Your task to perform on an android device: Empty the shopping cart on ebay.com. Search for "razer blade" on ebay.com, select the first entry, and add it to the cart. Image 0: 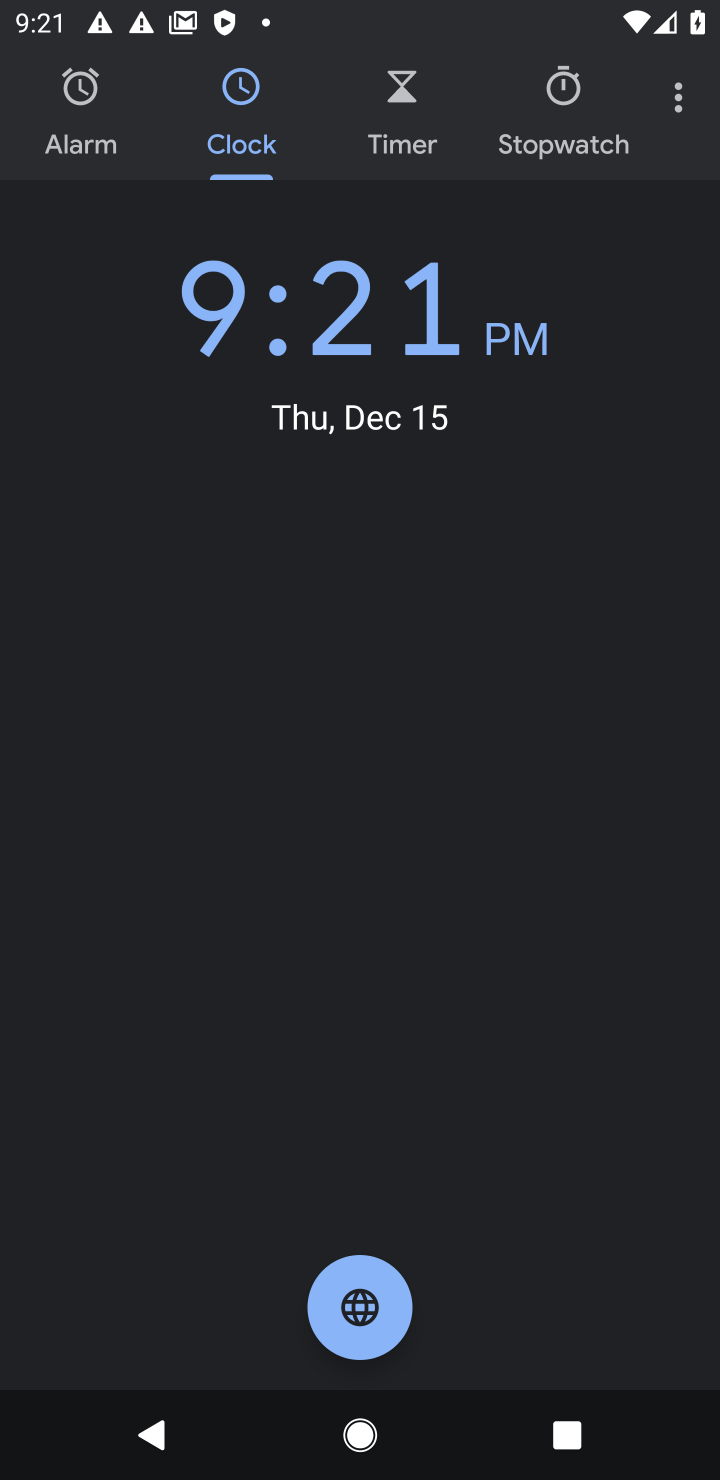
Step 0: press home button
Your task to perform on an android device: Empty the shopping cart on ebay.com. Search for "razer blade" on ebay.com, select the first entry, and add it to the cart. Image 1: 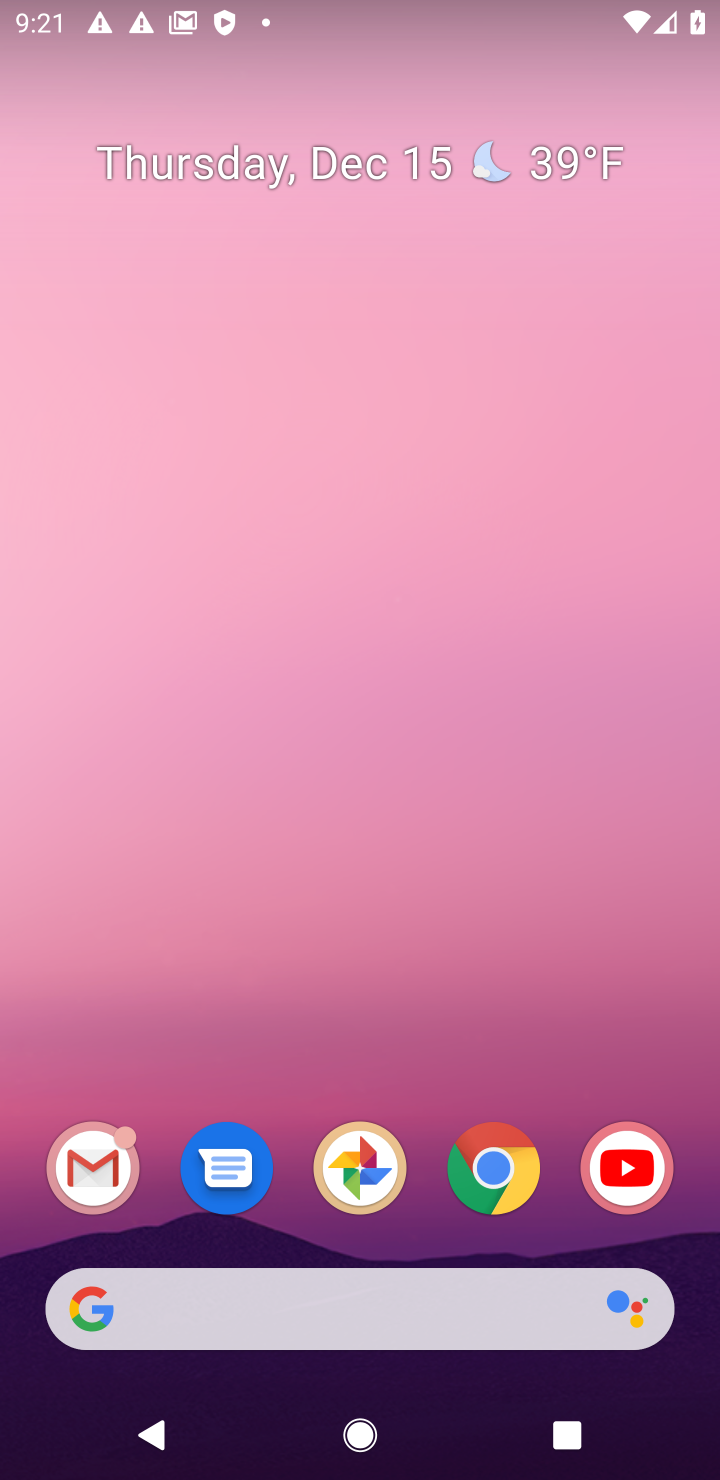
Step 1: click (490, 1179)
Your task to perform on an android device: Empty the shopping cart on ebay.com. Search for "razer blade" on ebay.com, select the first entry, and add it to the cart. Image 2: 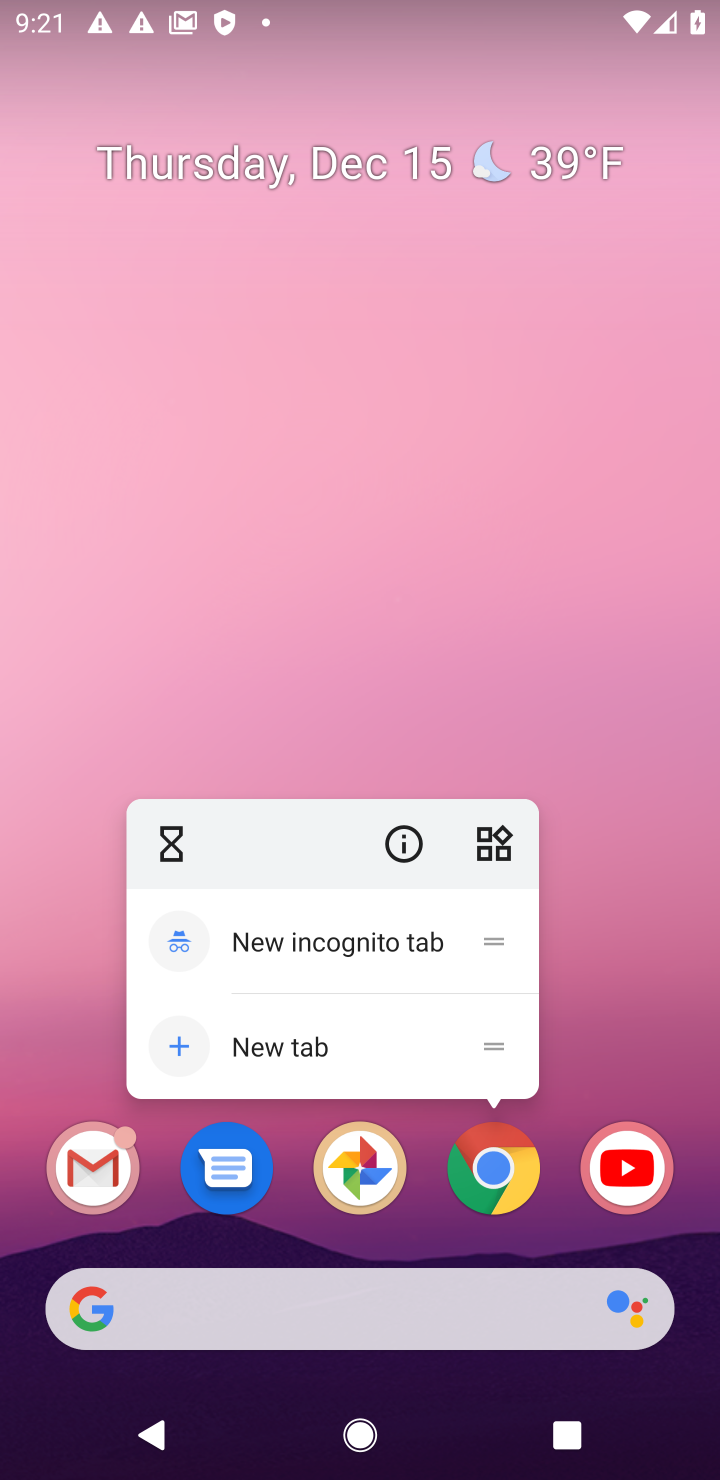
Step 2: click (501, 1185)
Your task to perform on an android device: Empty the shopping cart on ebay.com. Search for "razer blade" on ebay.com, select the first entry, and add it to the cart. Image 3: 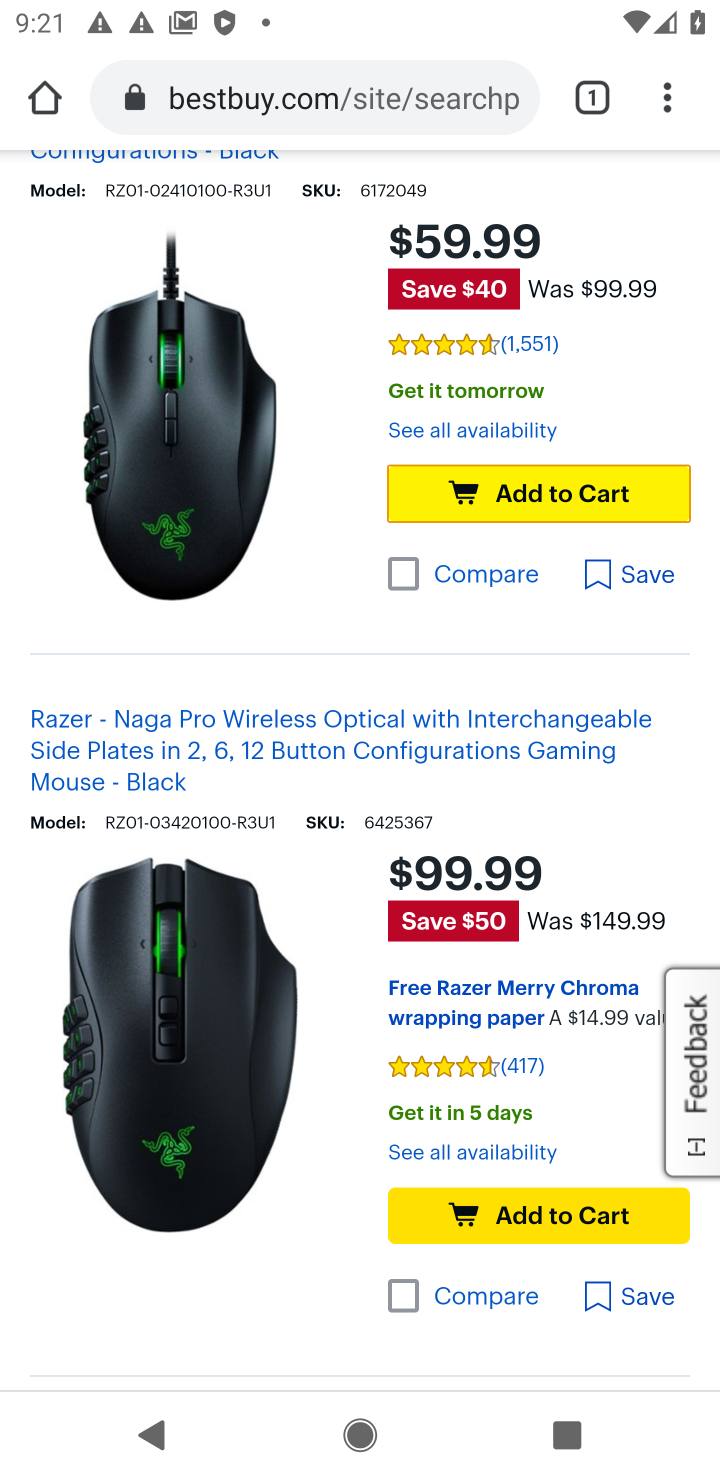
Step 3: click (282, 98)
Your task to perform on an android device: Empty the shopping cart on ebay.com. Search for "razer blade" on ebay.com, select the first entry, and add it to the cart. Image 4: 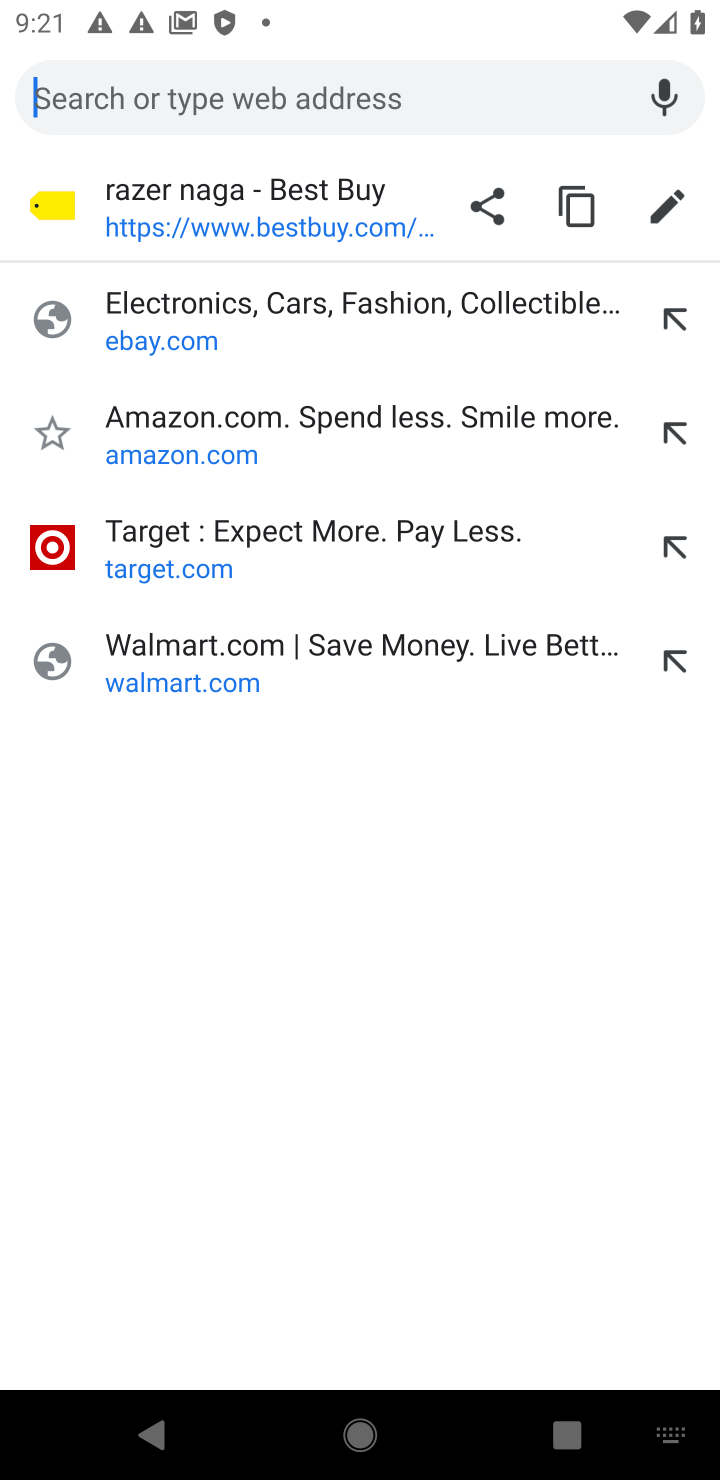
Step 4: type "EBAY"
Your task to perform on an android device: Empty the shopping cart on ebay.com. Search for "razer blade" on ebay.com, select the first entry, and add it to the cart. Image 5: 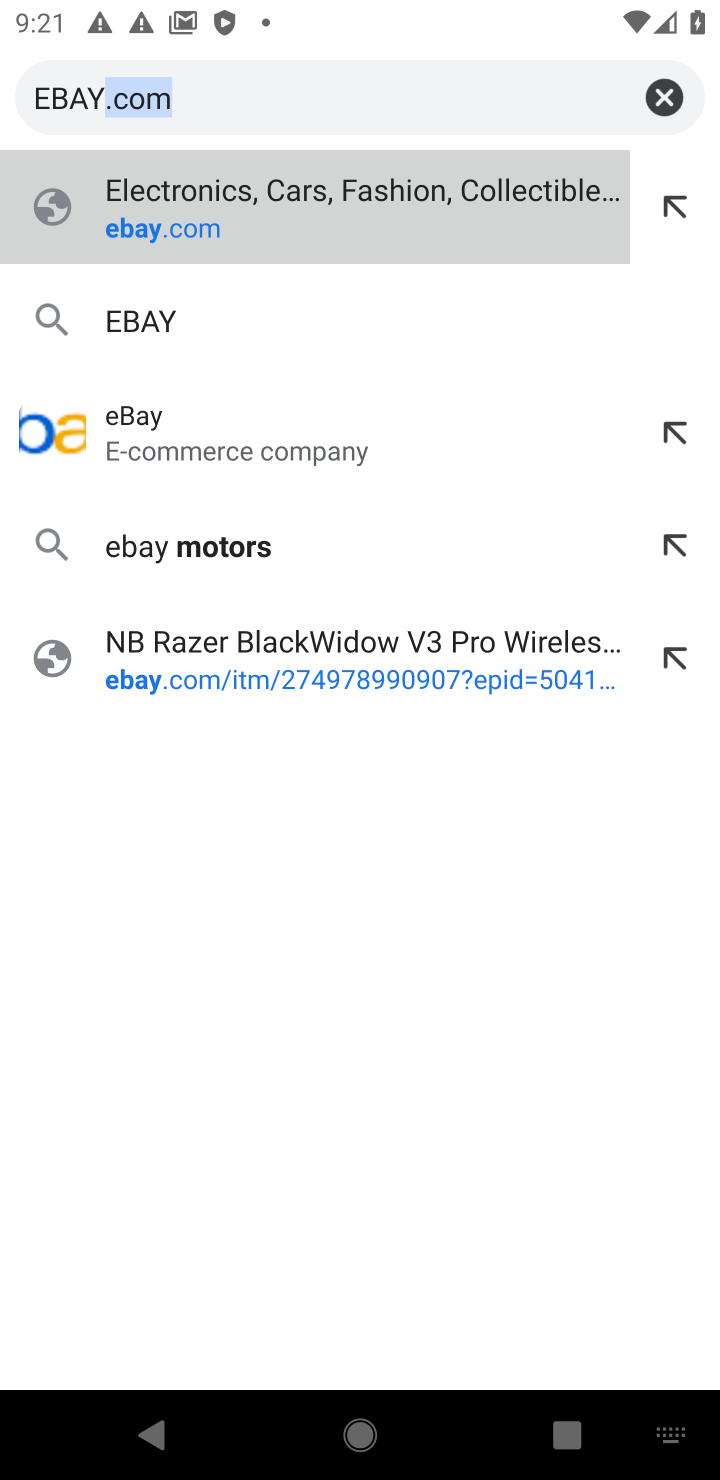
Step 5: click (283, 224)
Your task to perform on an android device: Empty the shopping cart on ebay.com. Search for "razer blade" on ebay.com, select the first entry, and add it to the cart. Image 6: 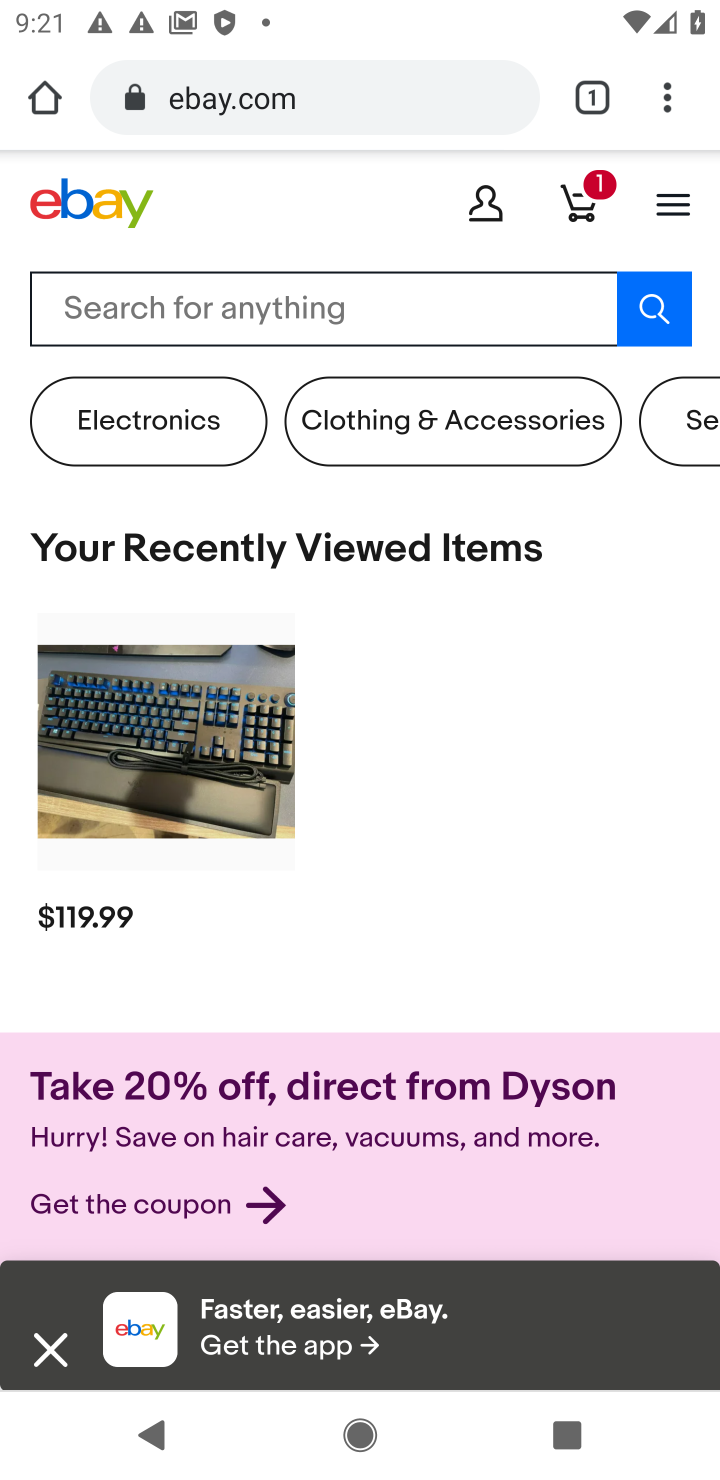
Step 6: click (576, 214)
Your task to perform on an android device: Empty the shopping cart on ebay.com. Search for "razer blade" on ebay.com, select the first entry, and add it to the cart. Image 7: 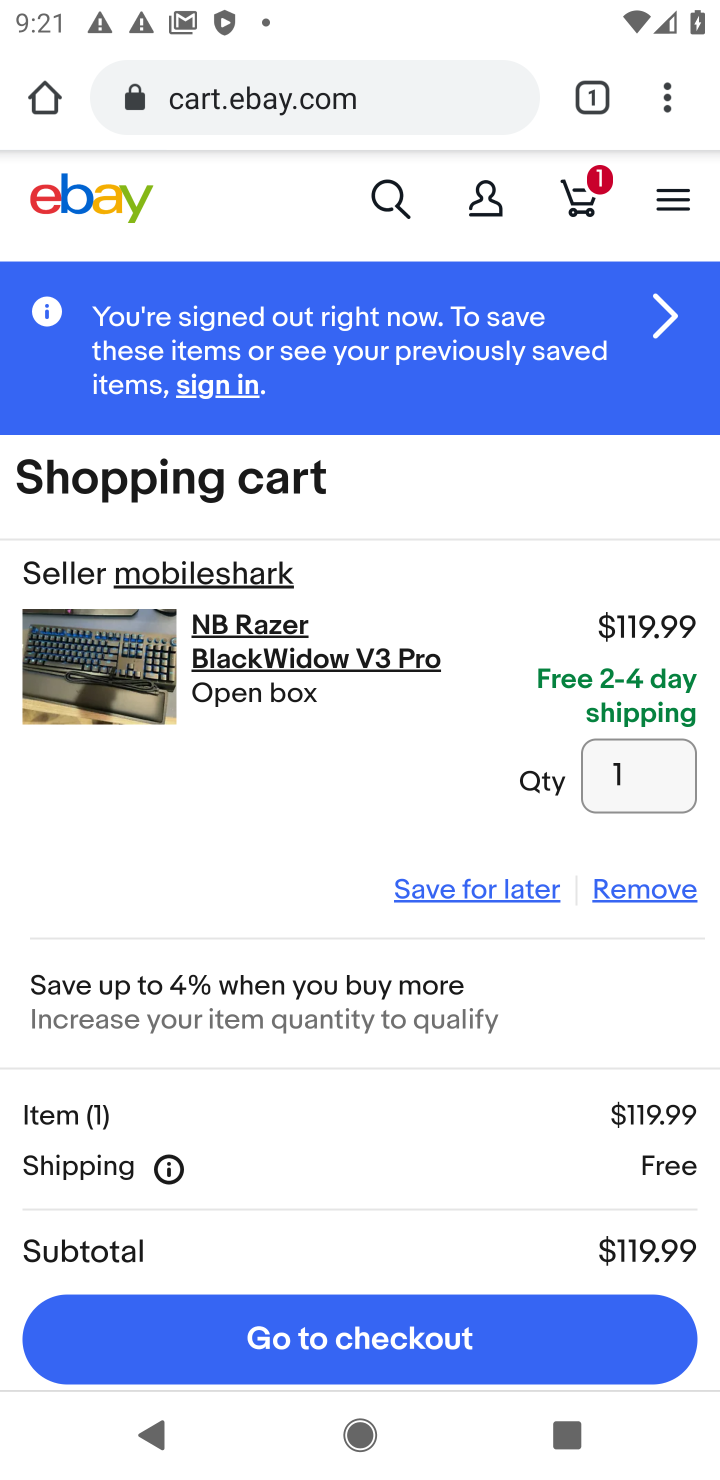
Step 7: click (632, 890)
Your task to perform on an android device: Empty the shopping cart on ebay.com. Search for "razer blade" on ebay.com, select the first entry, and add it to the cart. Image 8: 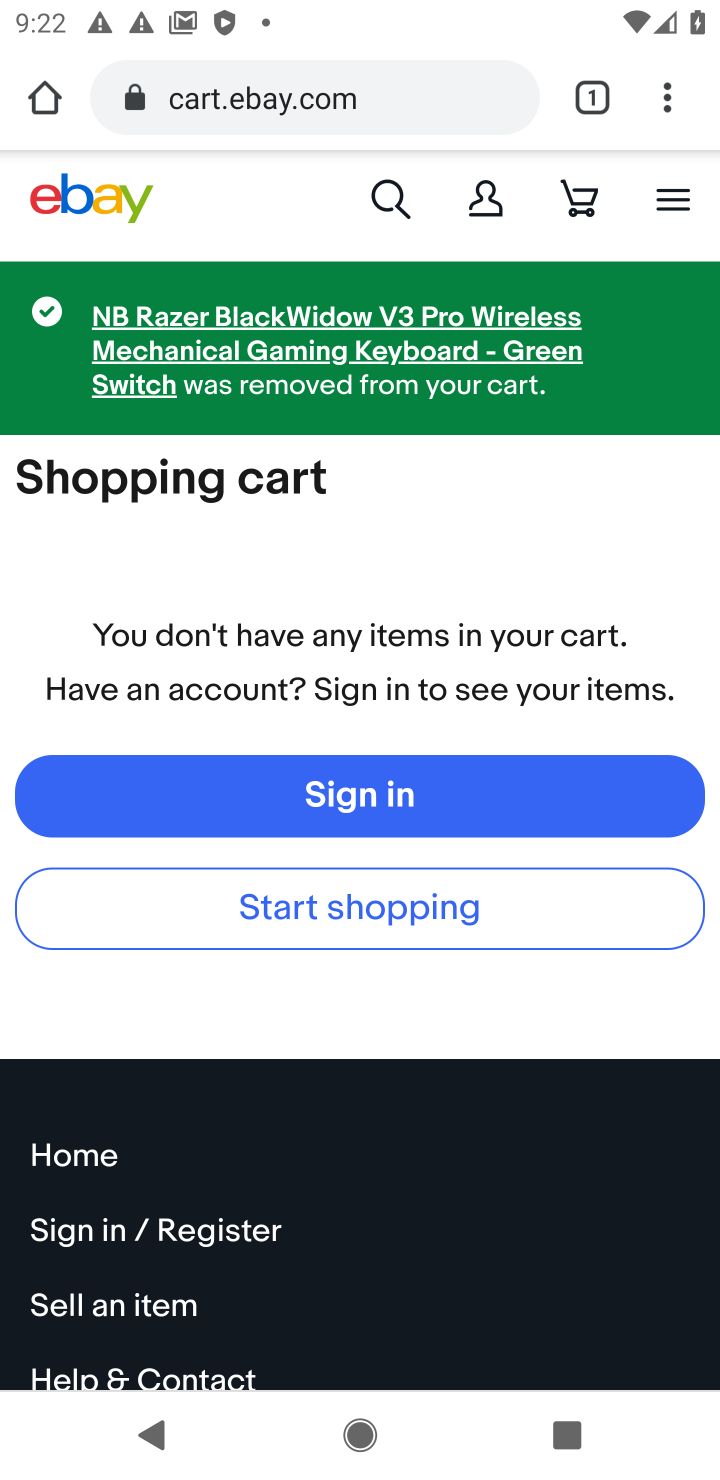
Step 8: click (386, 189)
Your task to perform on an android device: Empty the shopping cart on ebay.com. Search for "razer blade" on ebay.com, select the first entry, and add it to the cart. Image 9: 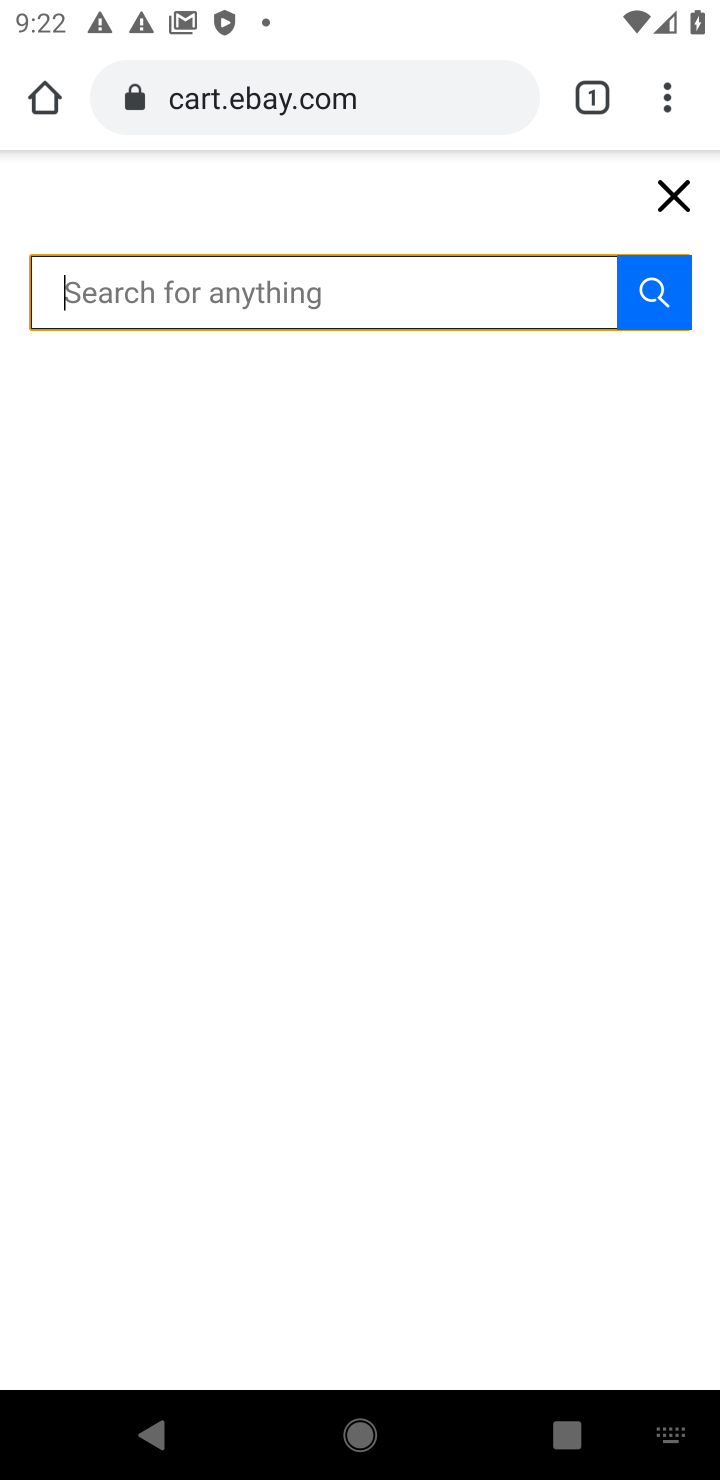
Step 9: click (371, 306)
Your task to perform on an android device: Empty the shopping cart on ebay.com. Search for "razer blade" on ebay.com, select the first entry, and add it to the cart. Image 10: 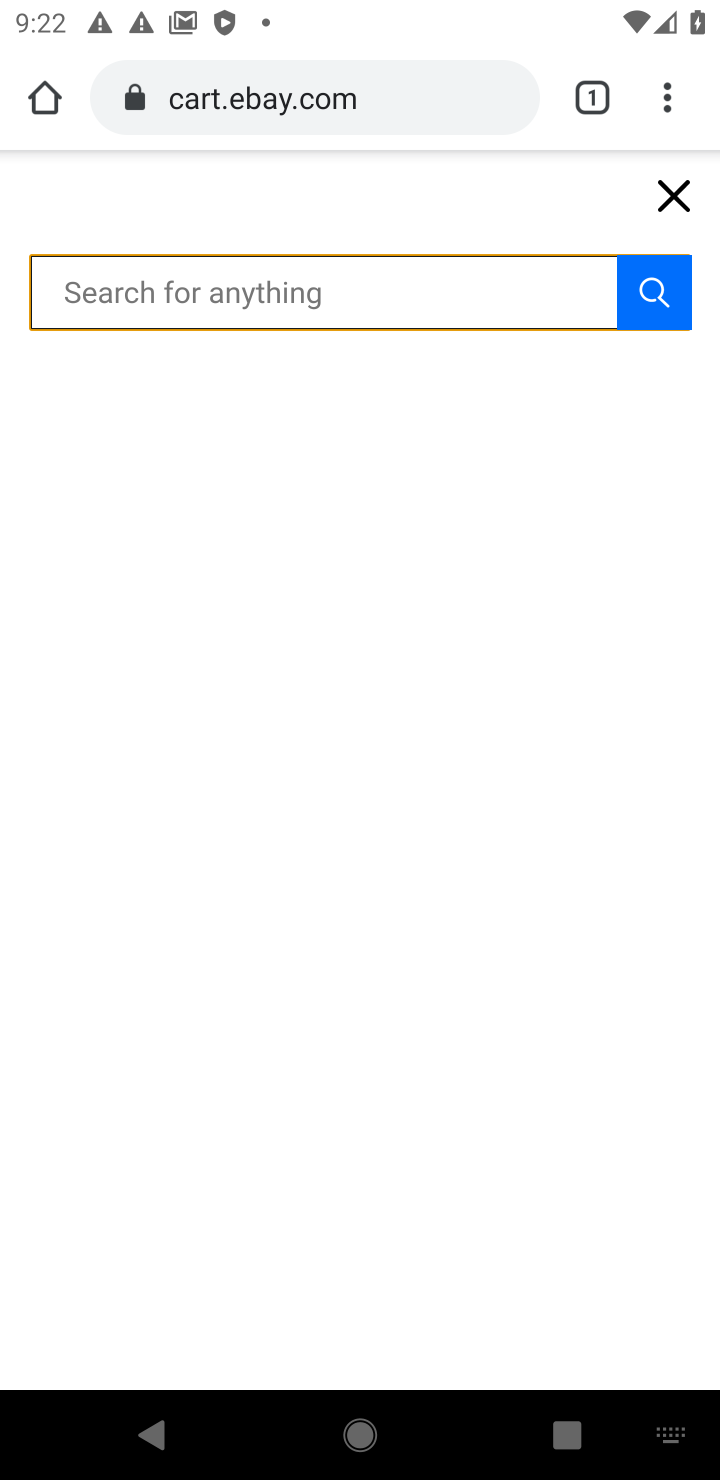
Step 10: type "razer blade"
Your task to perform on an android device: Empty the shopping cart on ebay.com. Search for "razer blade" on ebay.com, select the first entry, and add it to the cart. Image 11: 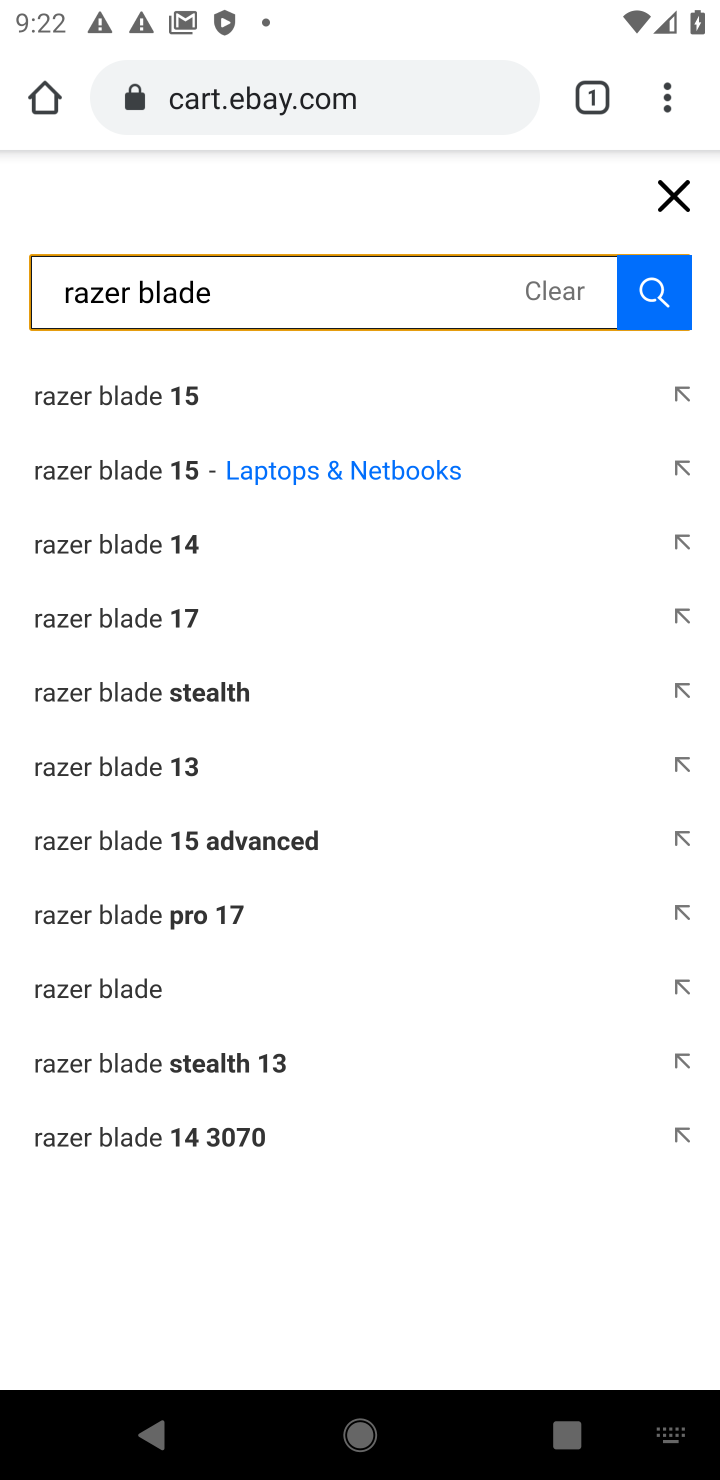
Step 11: click (179, 411)
Your task to perform on an android device: Empty the shopping cart on ebay.com. Search for "razer blade" on ebay.com, select the first entry, and add it to the cart. Image 12: 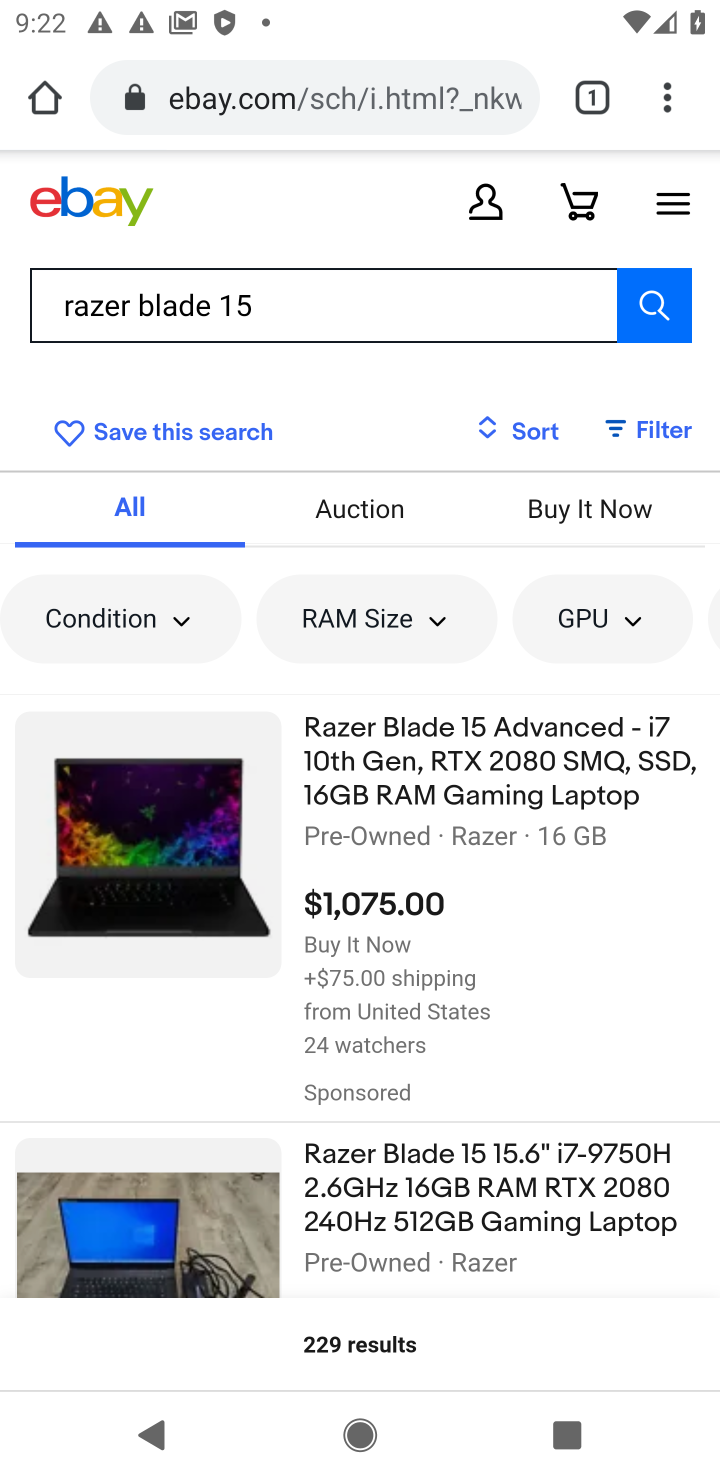
Step 12: click (549, 784)
Your task to perform on an android device: Empty the shopping cart on ebay.com. Search for "razer blade" on ebay.com, select the first entry, and add it to the cart. Image 13: 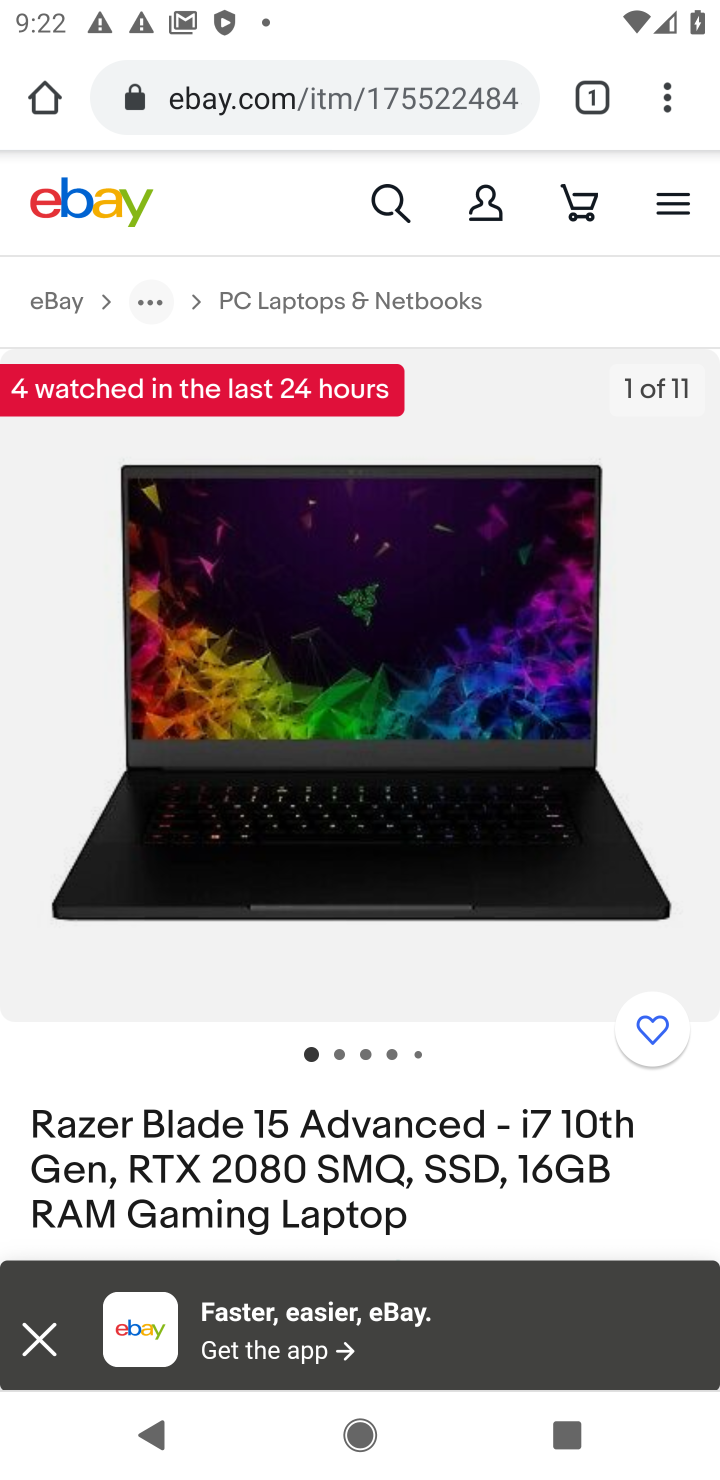
Step 13: drag from (573, 1273) to (548, 356)
Your task to perform on an android device: Empty the shopping cart on ebay.com. Search for "razer blade" on ebay.com, select the first entry, and add it to the cart. Image 14: 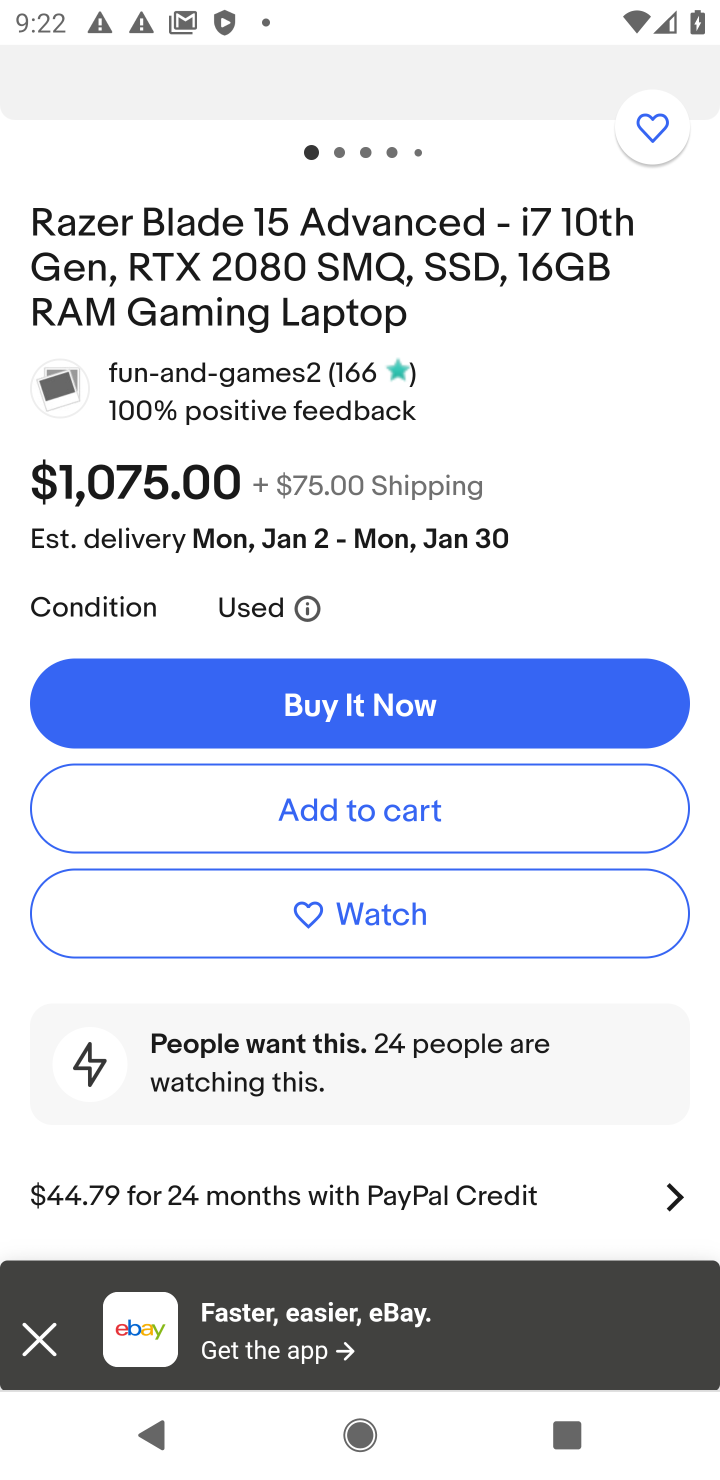
Step 14: click (364, 816)
Your task to perform on an android device: Empty the shopping cart on ebay.com. Search for "razer blade" on ebay.com, select the first entry, and add it to the cart. Image 15: 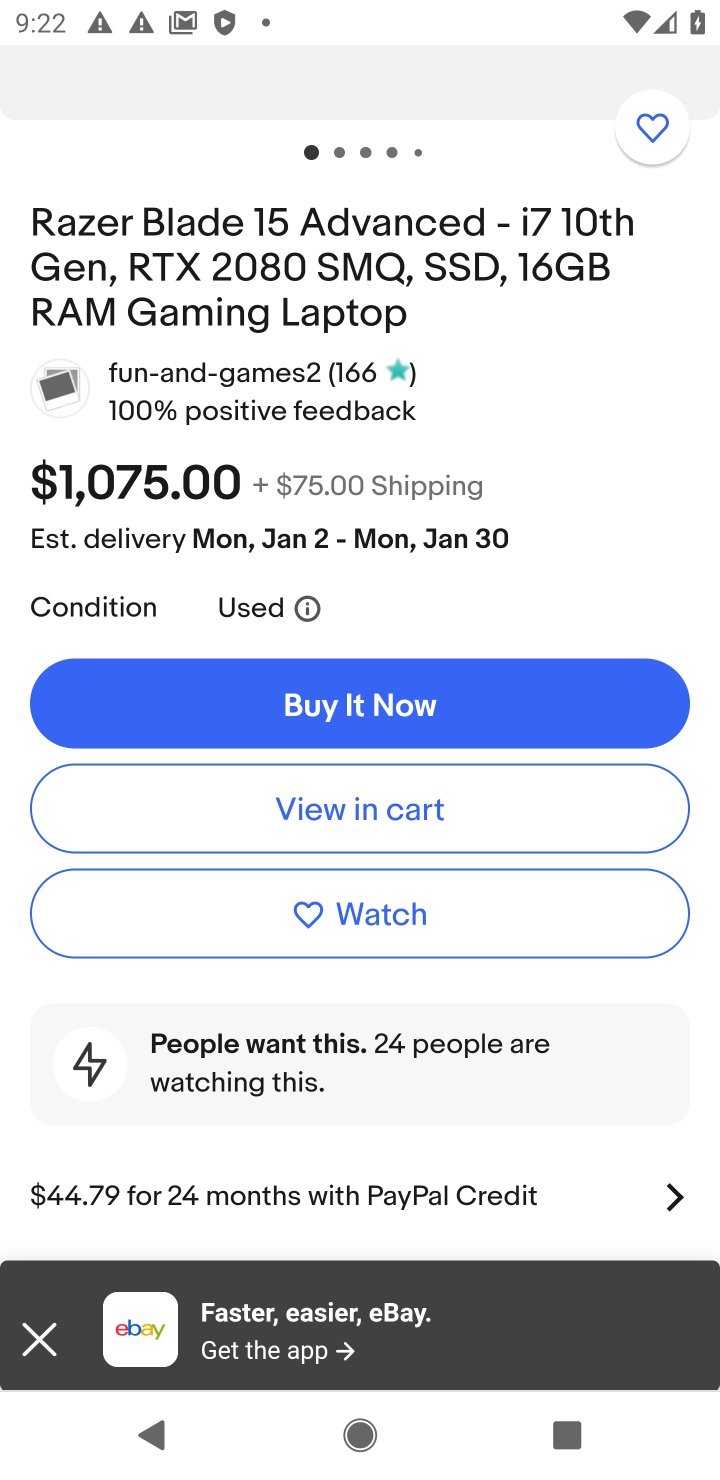
Step 15: task complete